Your task to perform on an android device: Go to settings Image 0: 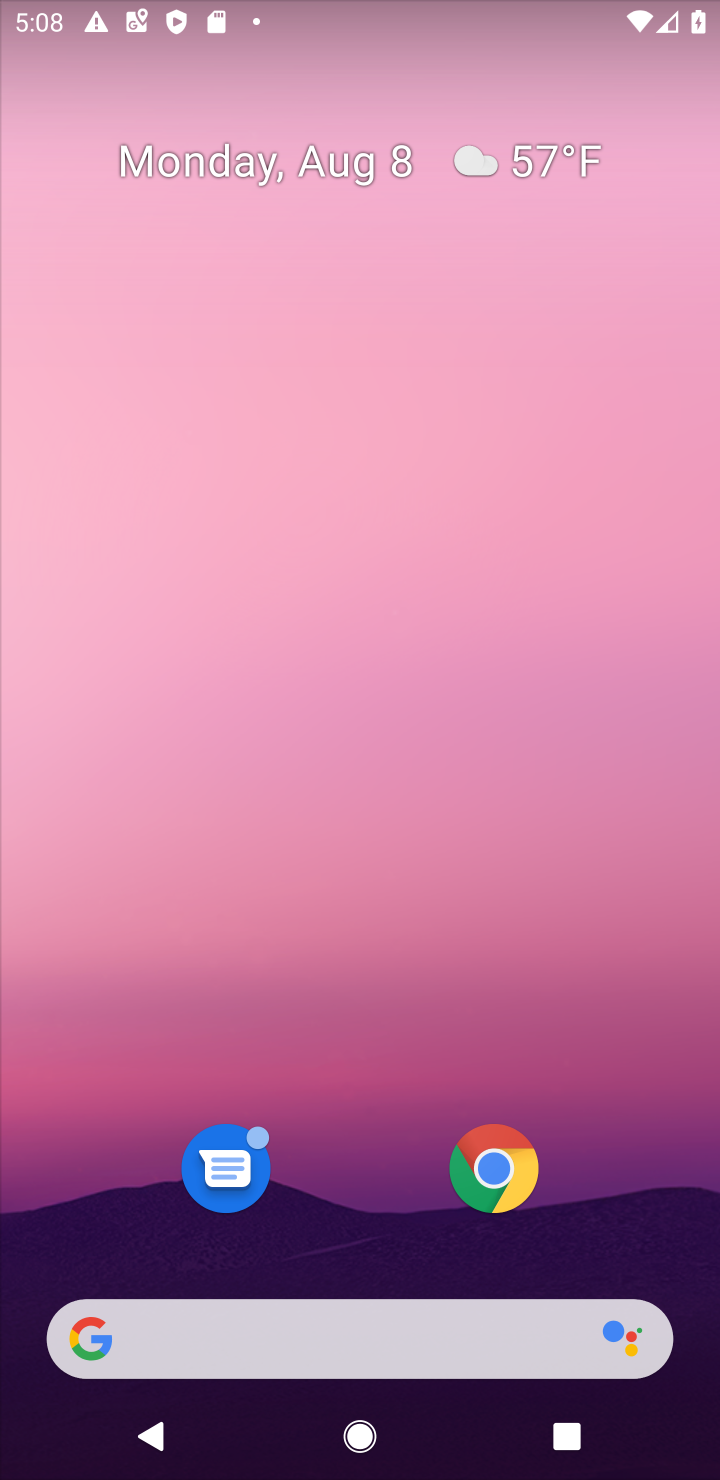
Step 0: drag from (394, 1324) to (403, 199)
Your task to perform on an android device: Go to settings Image 1: 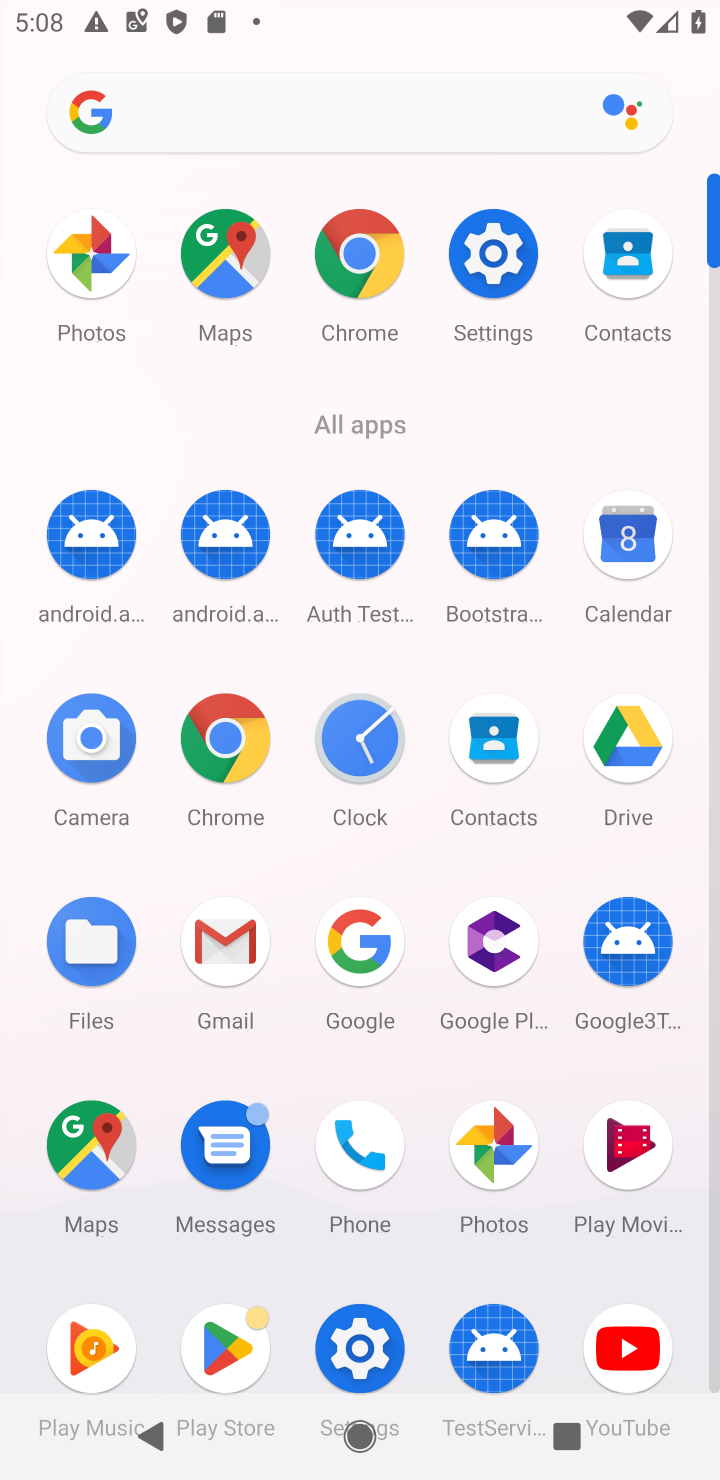
Step 1: click (506, 286)
Your task to perform on an android device: Go to settings Image 2: 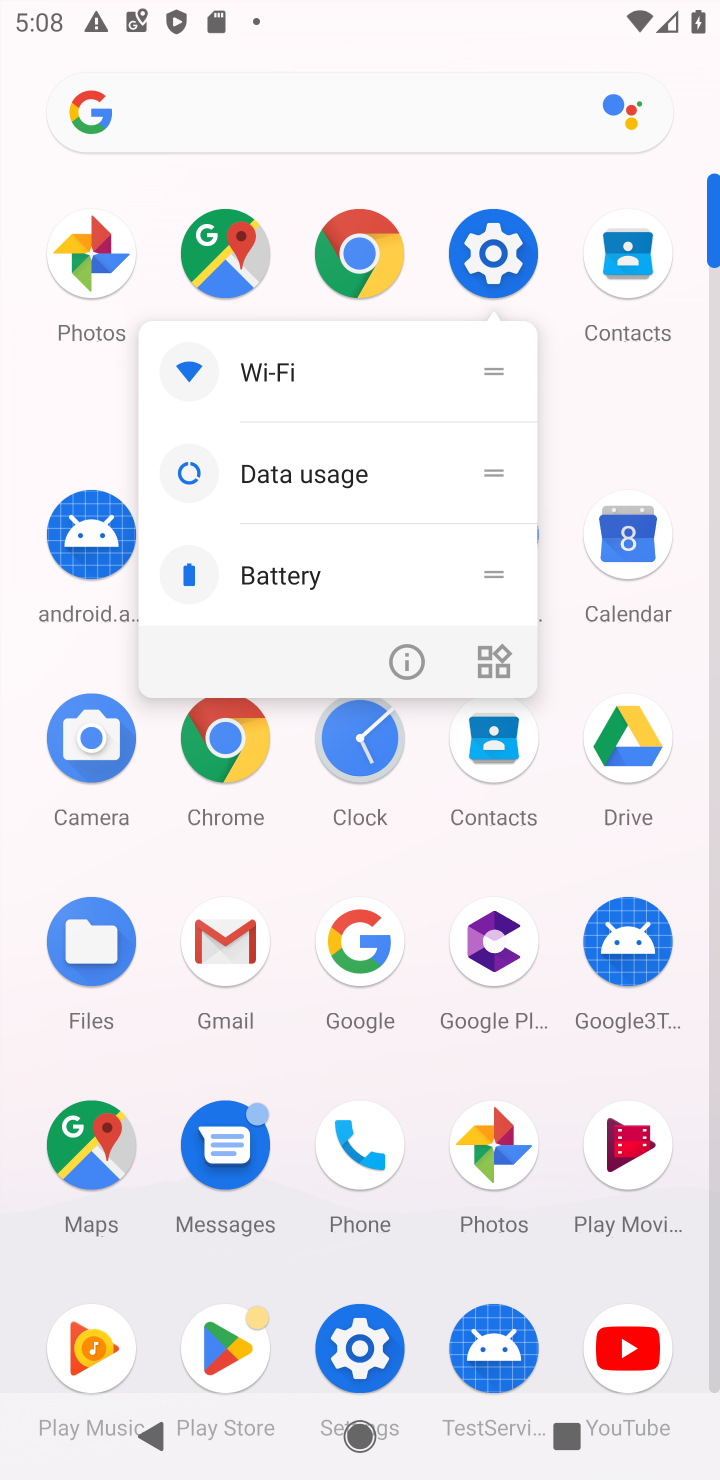
Step 2: click (491, 266)
Your task to perform on an android device: Go to settings Image 3: 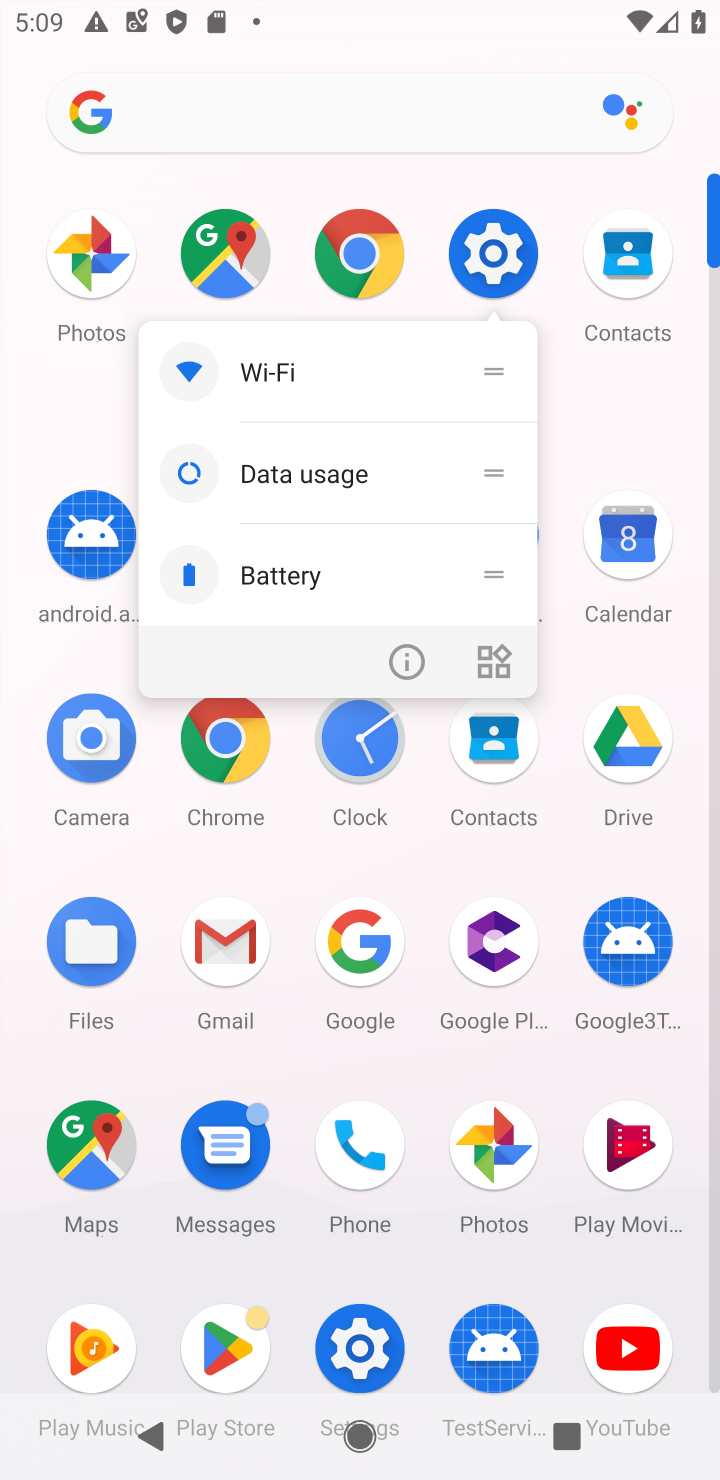
Step 3: click (491, 266)
Your task to perform on an android device: Go to settings Image 4: 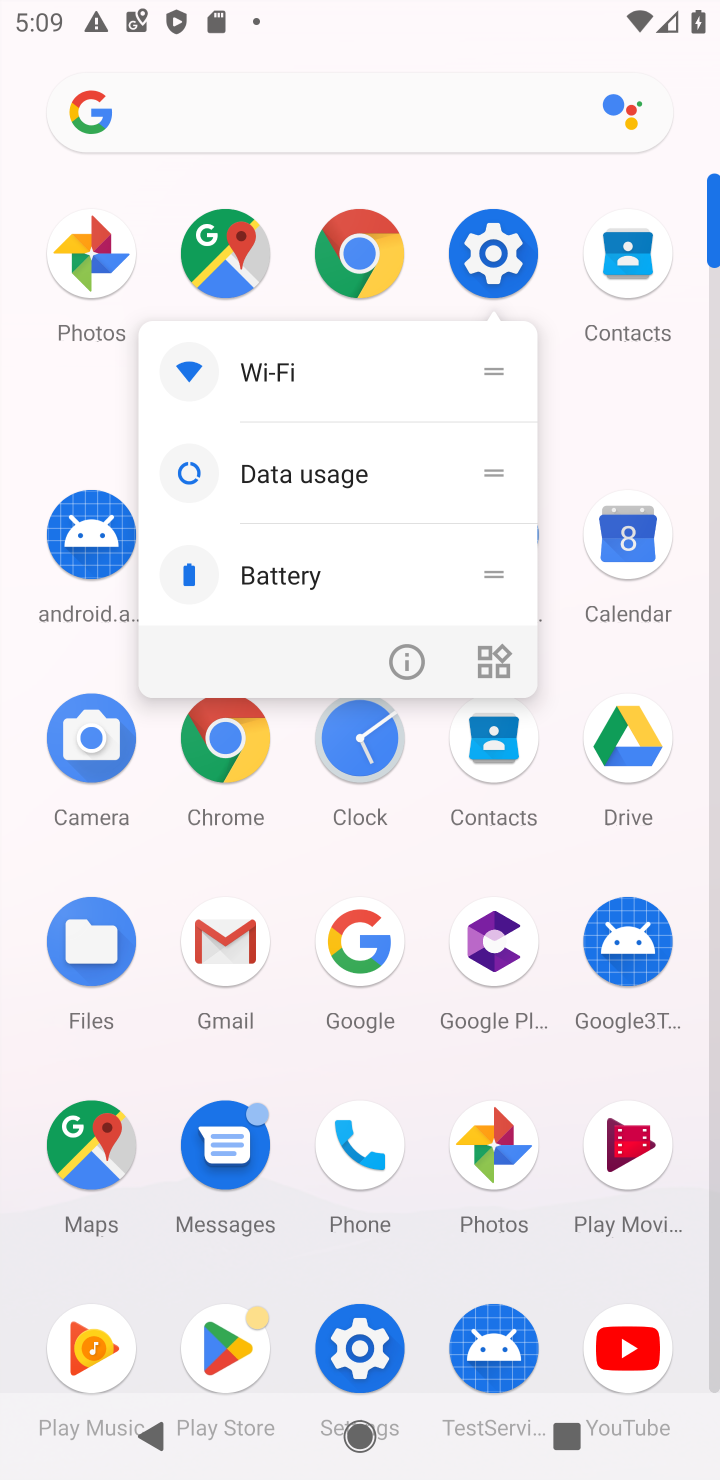
Step 4: click (479, 279)
Your task to perform on an android device: Go to settings Image 5: 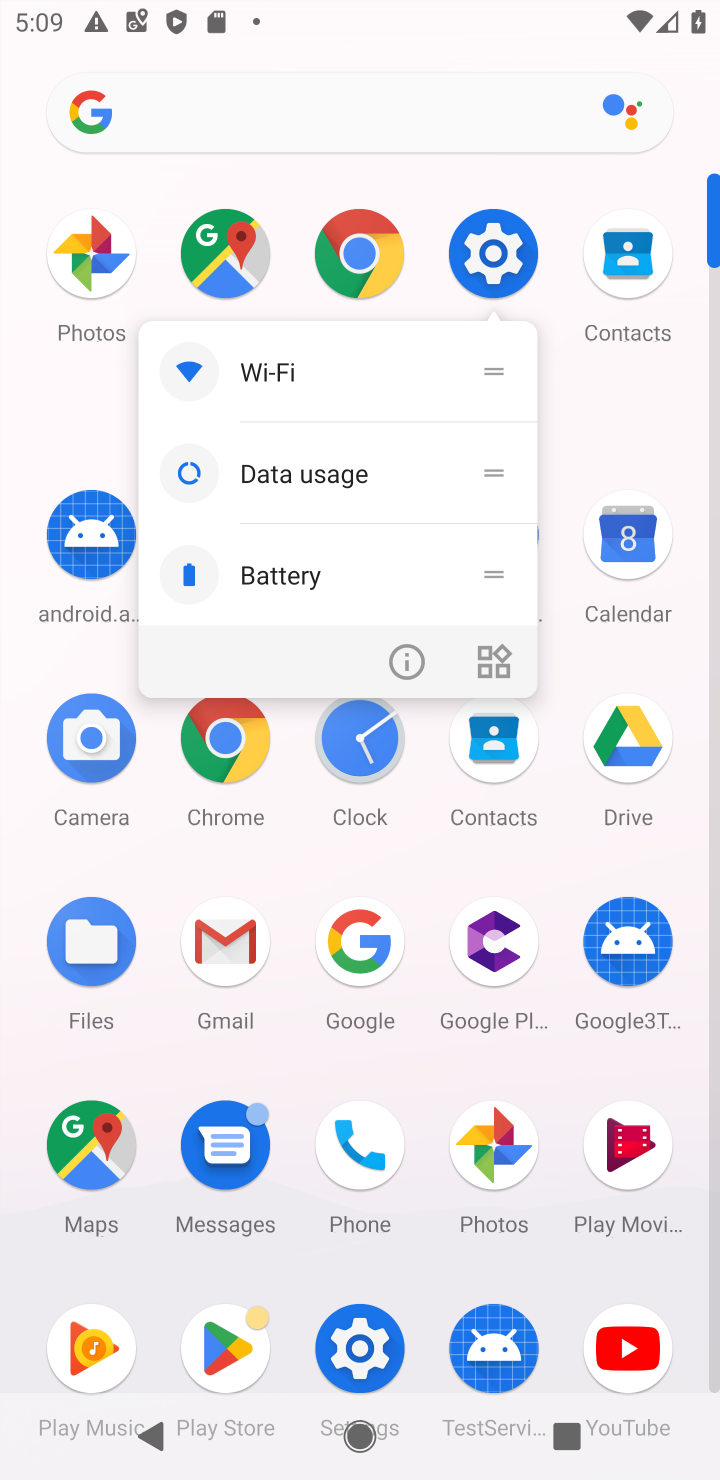
Step 5: click (472, 253)
Your task to perform on an android device: Go to settings Image 6: 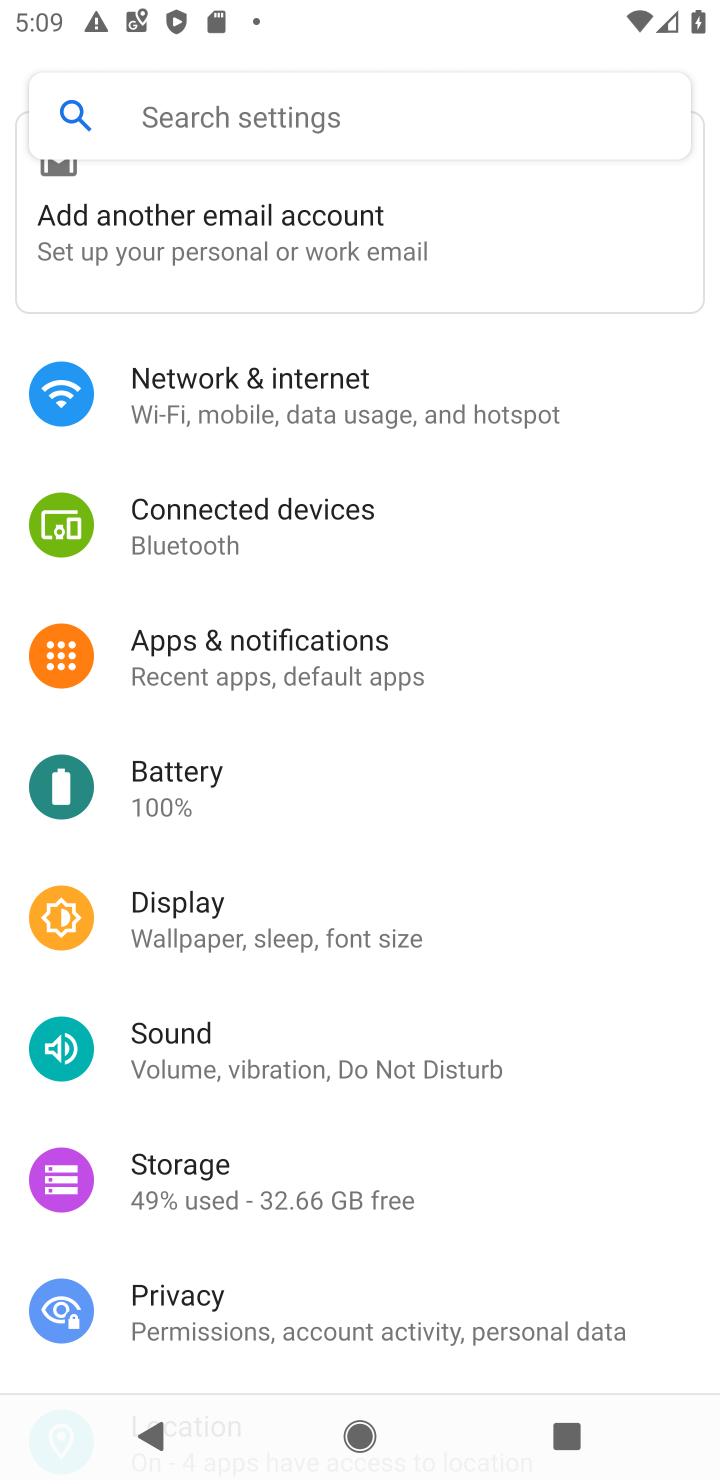
Step 6: task complete